Your task to perform on an android device: Open Chrome and go to settings Image 0: 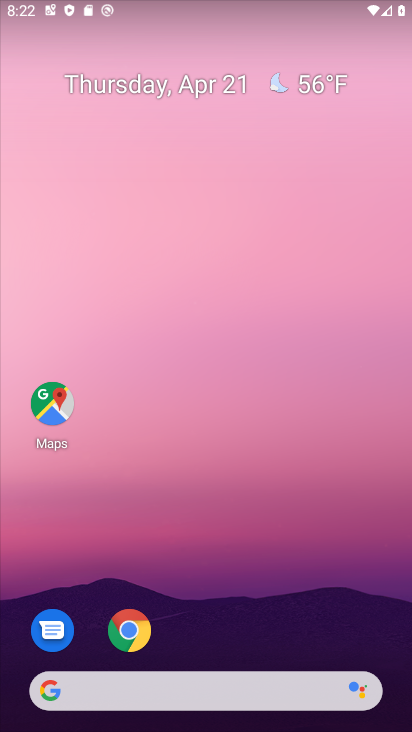
Step 0: click (135, 638)
Your task to perform on an android device: Open Chrome and go to settings Image 1: 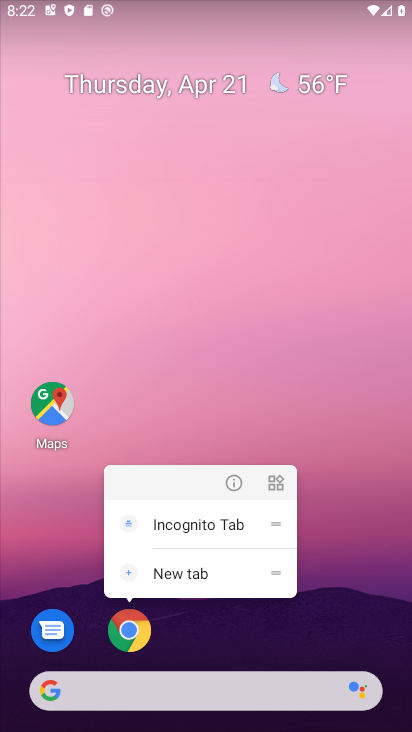
Step 1: click (136, 635)
Your task to perform on an android device: Open Chrome and go to settings Image 2: 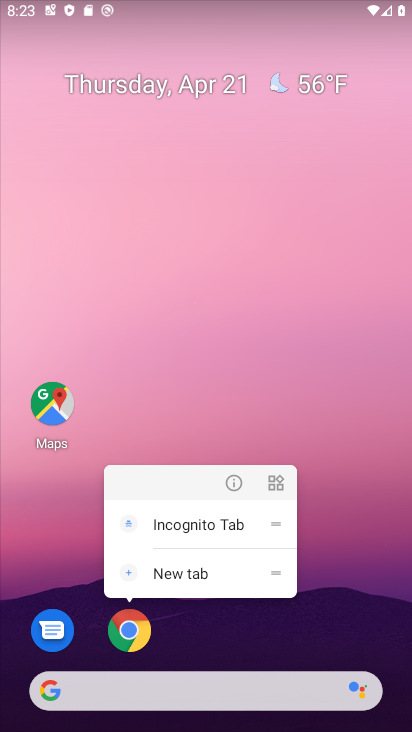
Step 2: click (139, 628)
Your task to perform on an android device: Open Chrome and go to settings Image 3: 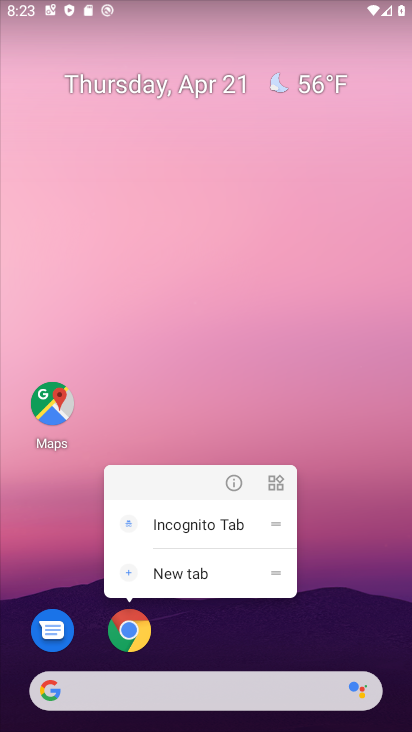
Step 3: drag from (286, 676) to (409, 77)
Your task to perform on an android device: Open Chrome and go to settings Image 4: 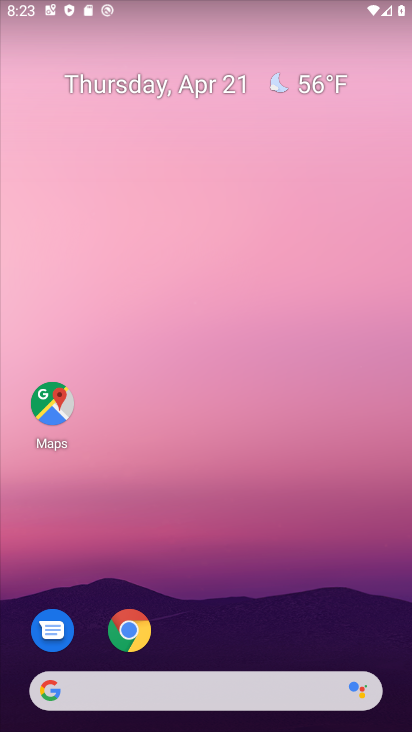
Step 4: drag from (191, 665) to (362, 1)
Your task to perform on an android device: Open Chrome and go to settings Image 5: 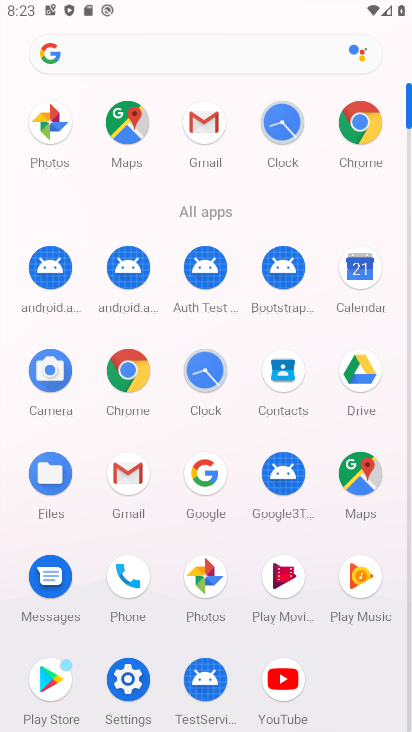
Step 5: click (136, 371)
Your task to perform on an android device: Open Chrome and go to settings Image 6: 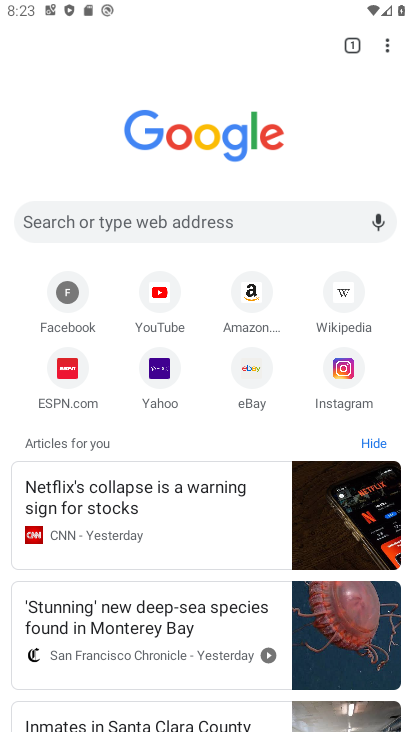
Step 6: task complete